Your task to perform on an android device: Go to Yahoo.com Image 0: 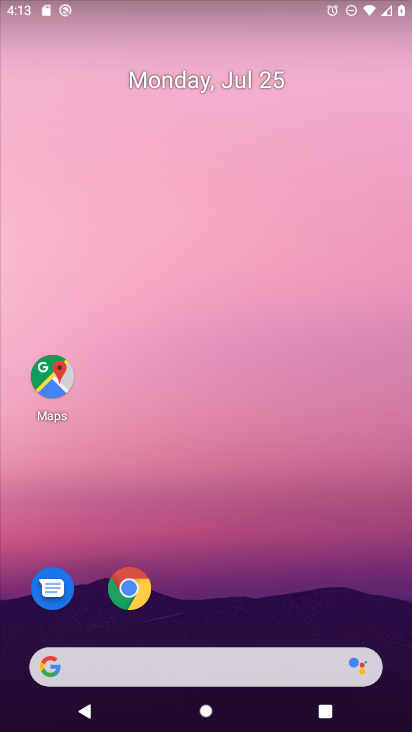
Step 0: press home button
Your task to perform on an android device: Go to Yahoo.com Image 1: 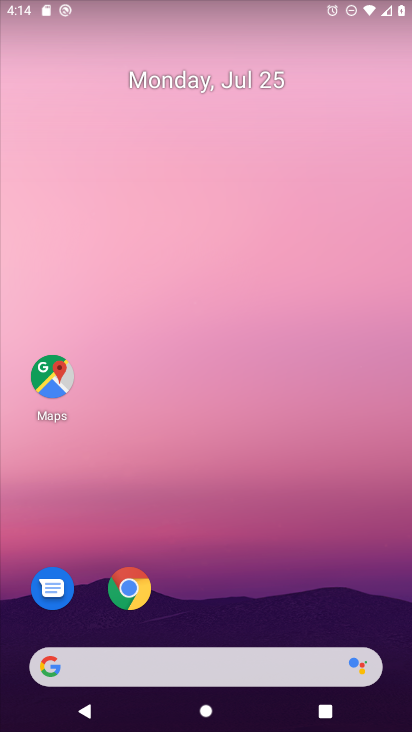
Step 1: click (129, 589)
Your task to perform on an android device: Go to Yahoo.com Image 2: 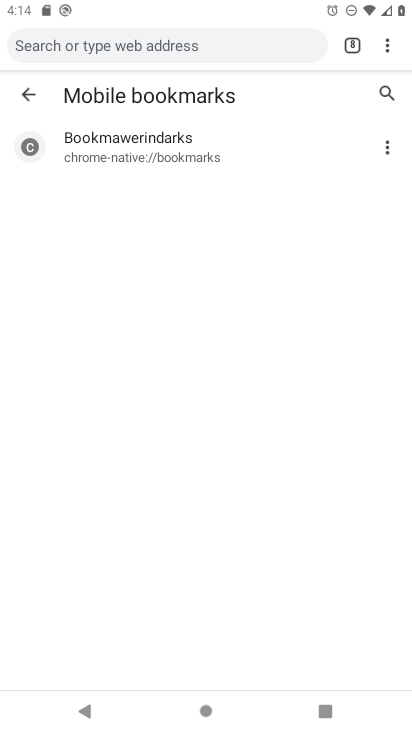
Step 2: click (386, 46)
Your task to perform on an android device: Go to Yahoo.com Image 3: 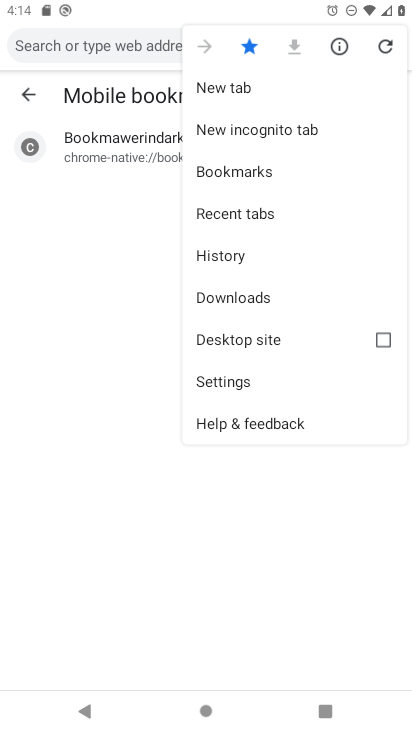
Step 3: click (235, 79)
Your task to perform on an android device: Go to Yahoo.com Image 4: 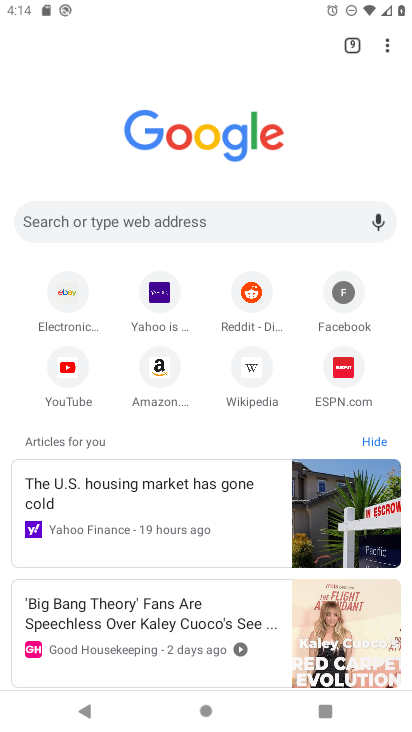
Step 4: click (153, 297)
Your task to perform on an android device: Go to Yahoo.com Image 5: 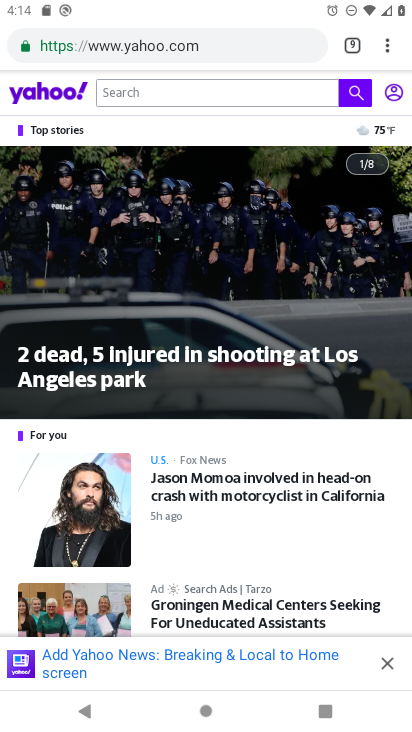
Step 5: task complete